Your task to perform on an android device: turn off translation in the chrome app Image 0: 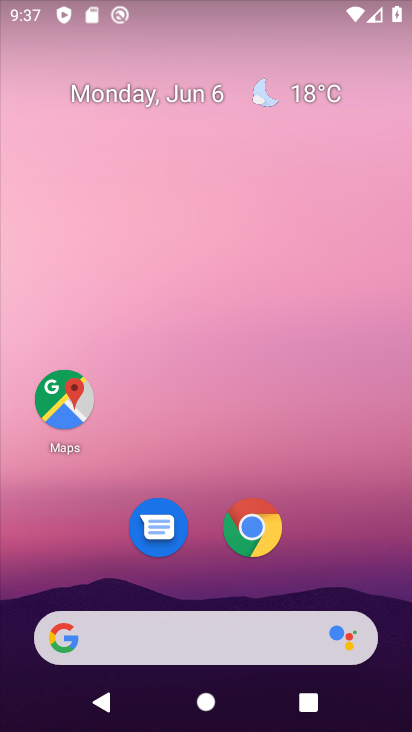
Step 0: click (268, 534)
Your task to perform on an android device: turn off translation in the chrome app Image 1: 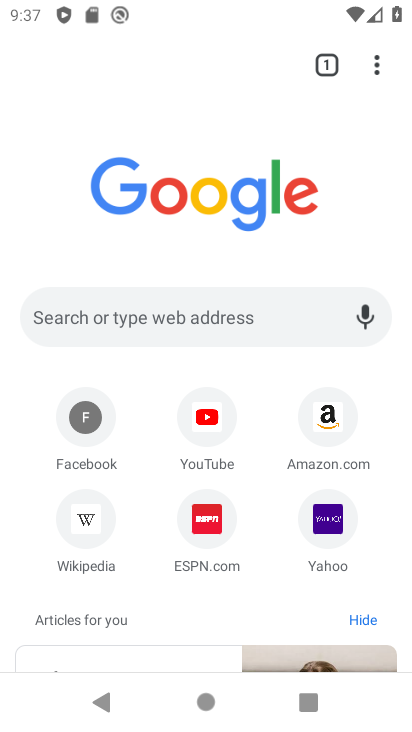
Step 1: click (383, 71)
Your task to perform on an android device: turn off translation in the chrome app Image 2: 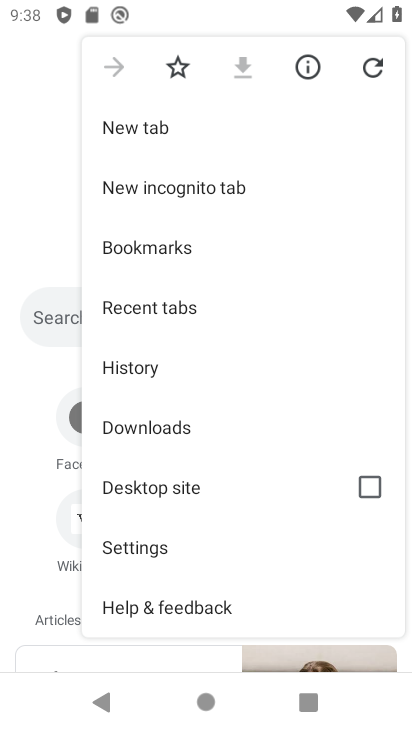
Step 2: click (179, 567)
Your task to perform on an android device: turn off translation in the chrome app Image 3: 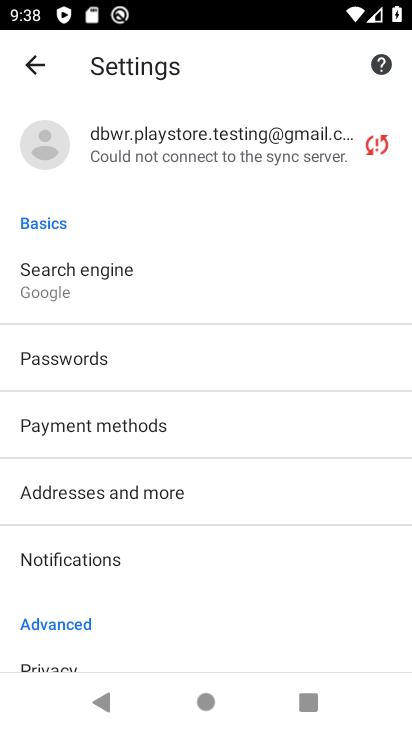
Step 3: drag from (148, 633) to (175, 193)
Your task to perform on an android device: turn off translation in the chrome app Image 4: 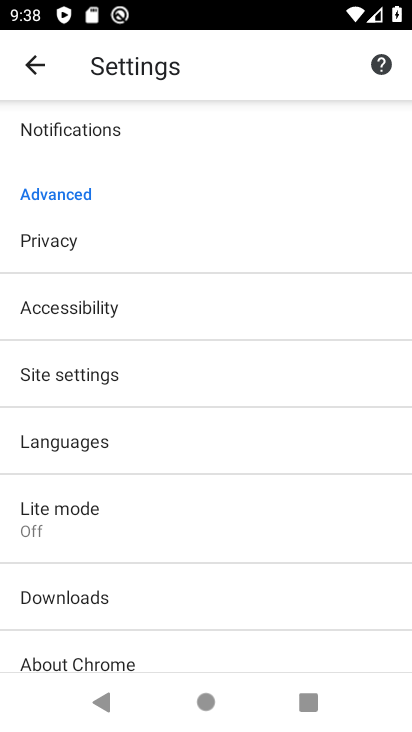
Step 4: click (127, 454)
Your task to perform on an android device: turn off translation in the chrome app Image 5: 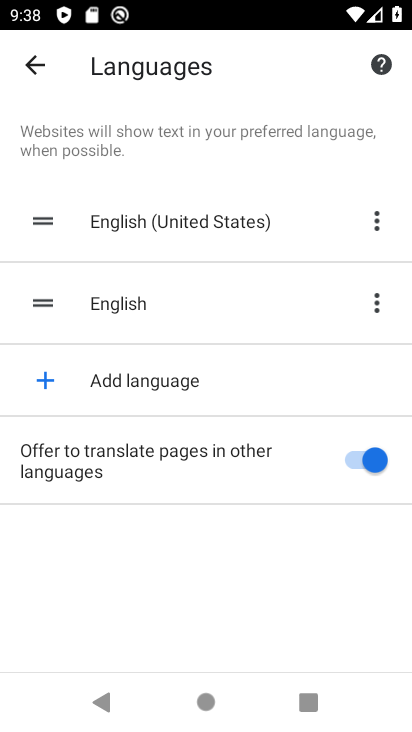
Step 5: click (351, 461)
Your task to perform on an android device: turn off translation in the chrome app Image 6: 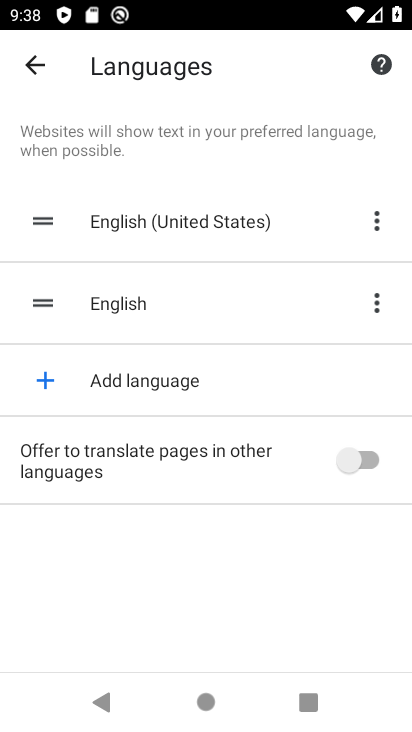
Step 6: task complete